Your task to perform on an android device: turn off sleep mode Image 0: 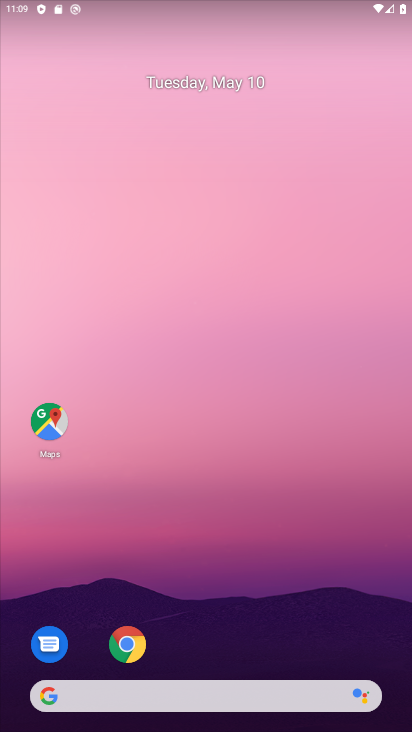
Step 0: drag from (255, 575) to (249, 242)
Your task to perform on an android device: turn off sleep mode Image 1: 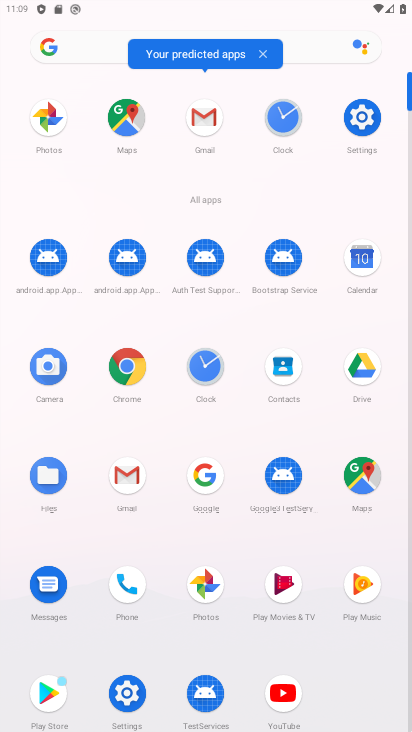
Step 1: click (354, 120)
Your task to perform on an android device: turn off sleep mode Image 2: 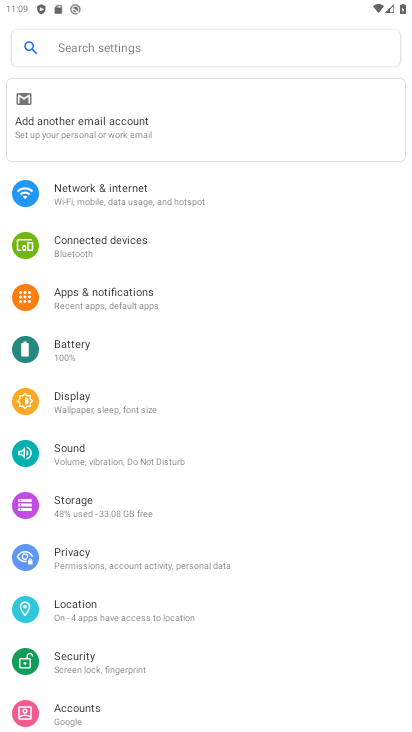
Step 2: click (145, 394)
Your task to perform on an android device: turn off sleep mode Image 3: 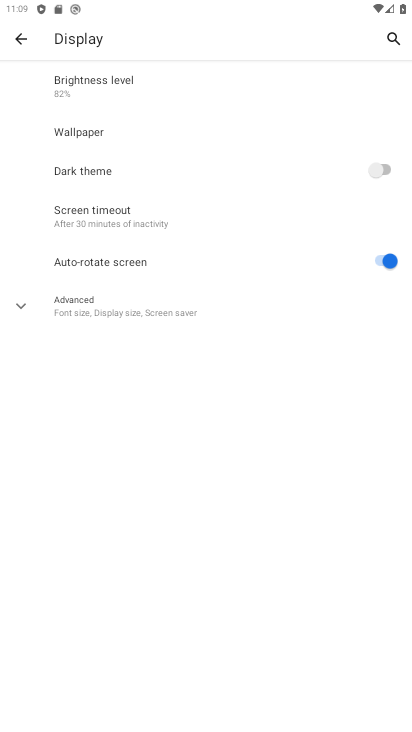
Step 3: click (162, 226)
Your task to perform on an android device: turn off sleep mode Image 4: 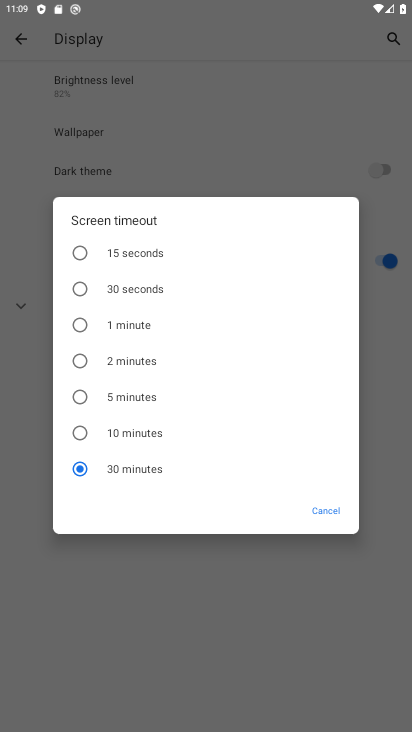
Step 4: click (121, 327)
Your task to perform on an android device: turn off sleep mode Image 5: 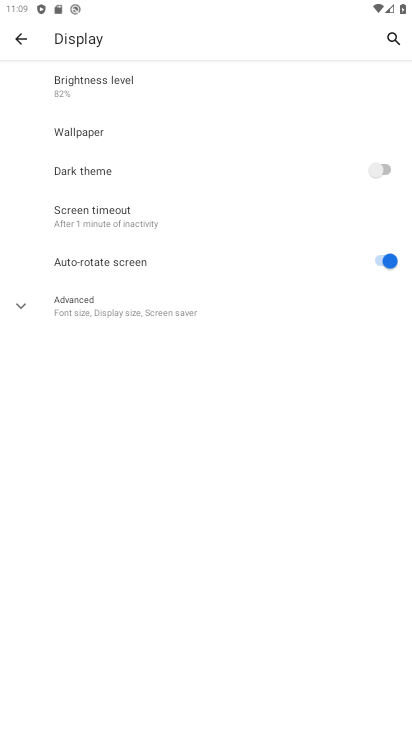
Step 5: task complete